Your task to perform on an android device: Go to notification settings Image 0: 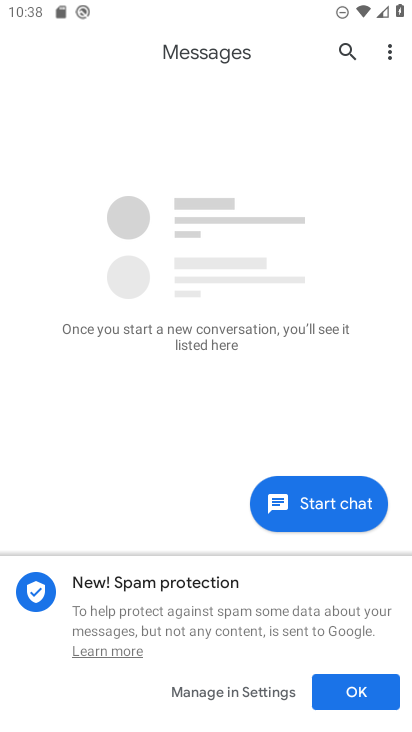
Step 0: press back button
Your task to perform on an android device: Go to notification settings Image 1: 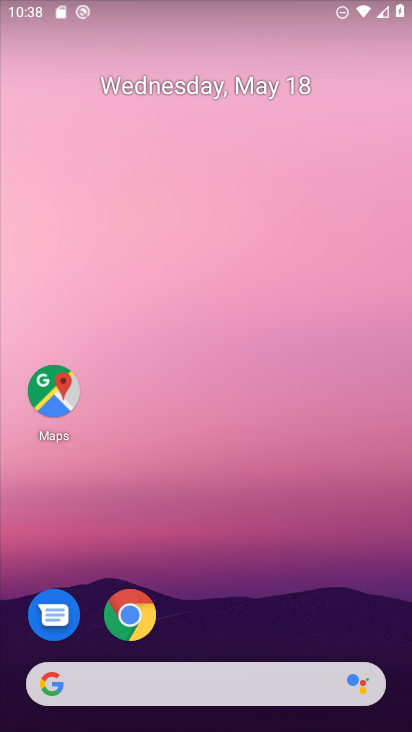
Step 1: drag from (295, 596) to (301, 81)
Your task to perform on an android device: Go to notification settings Image 2: 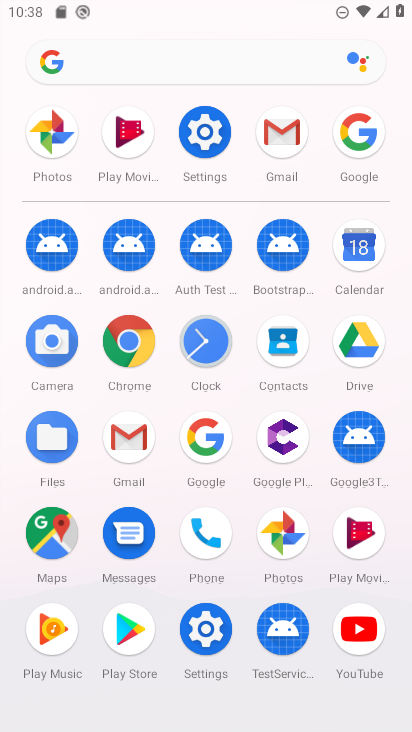
Step 2: click (197, 121)
Your task to perform on an android device: Go to notification settings Image 3: 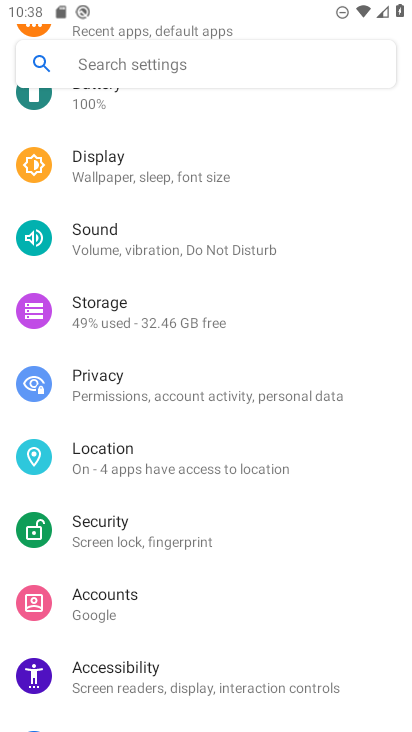
Step 3: drag from (162, 272) to (201, 562)
Your task to perform on an android device: Go to notification settings Image 4: 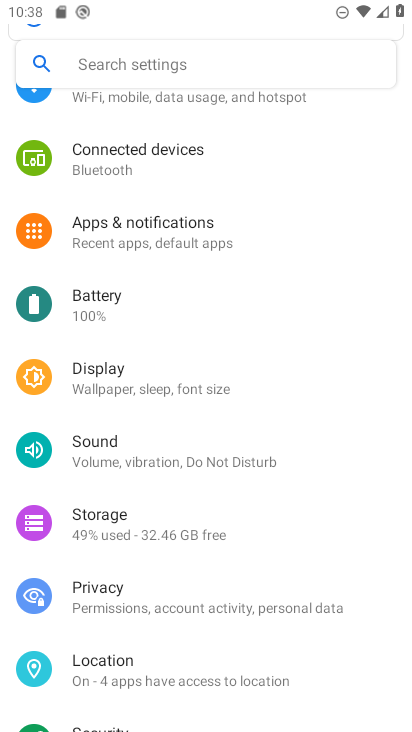
Step 4: click (112, 245)
Your task to perform on an android device: Go to notification settings Image 5: 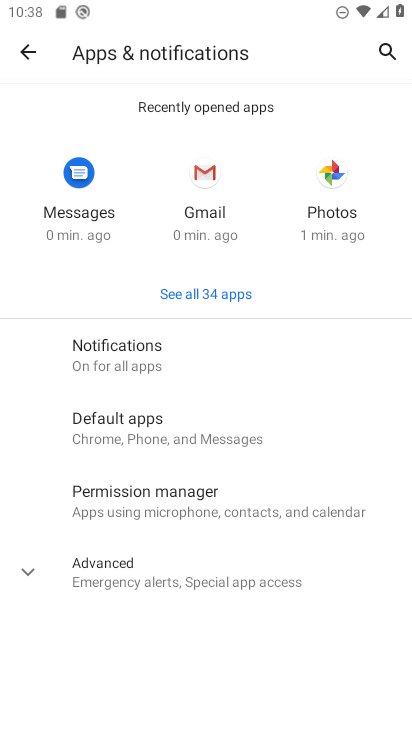
Step 5: click (111, 356)
Your task to perform on an android device: Go to notification settings Image 6: 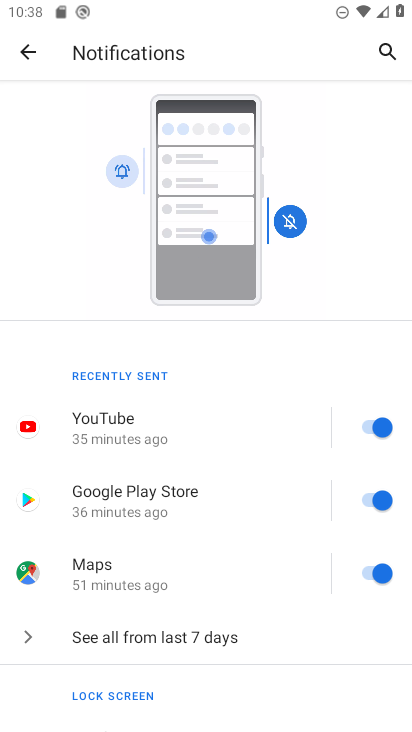
Step 6: task complete